Your task to perform on an android device: change the upload size in google photos Image 0: 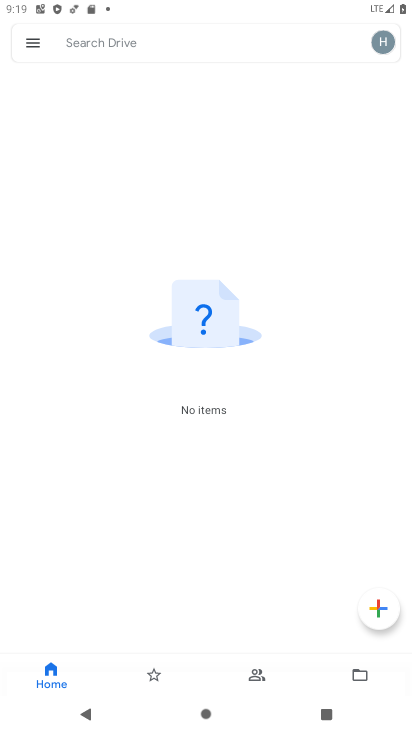
Step 0: press home button
Your task to perform on an android device: change the upload size in google photos Image 1: 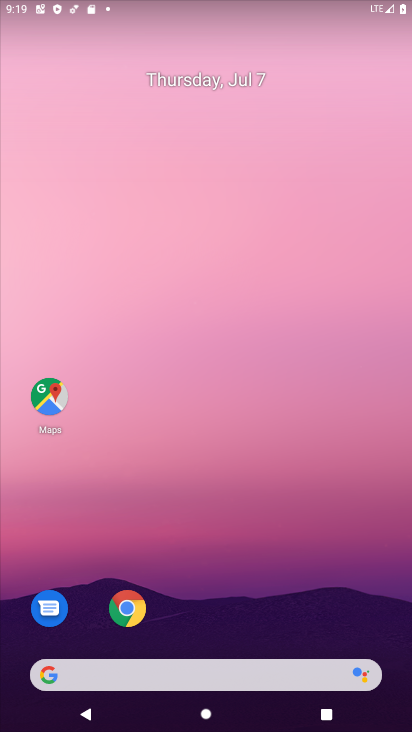
Step 1: drag from (182, 632) to (144, 174)
Your task to perform on an android device: change the upload size in google photos Image 2: 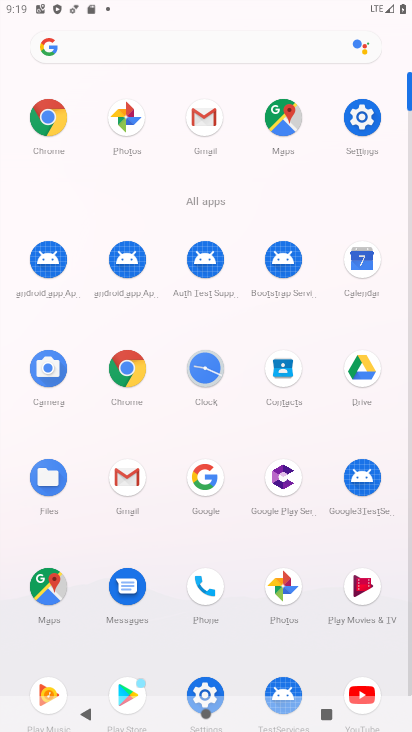
Step 2: click (289, 583)
Your task to perform on an android device: change the upload size in google photos Image 3: 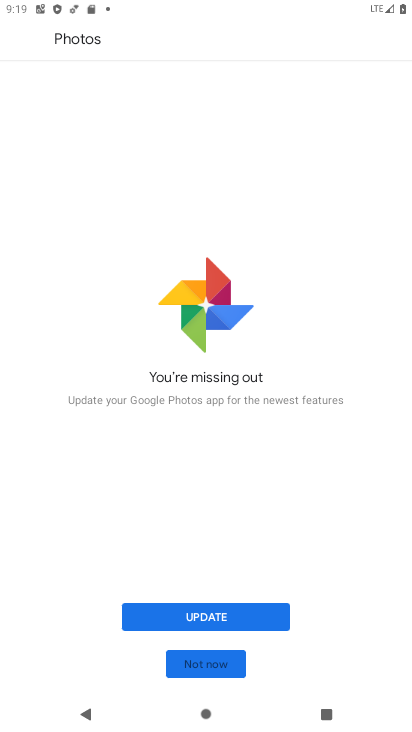
Step 3: click (219, 618)
Your task to perform on an android device: change the upload size in google photos Image 4: 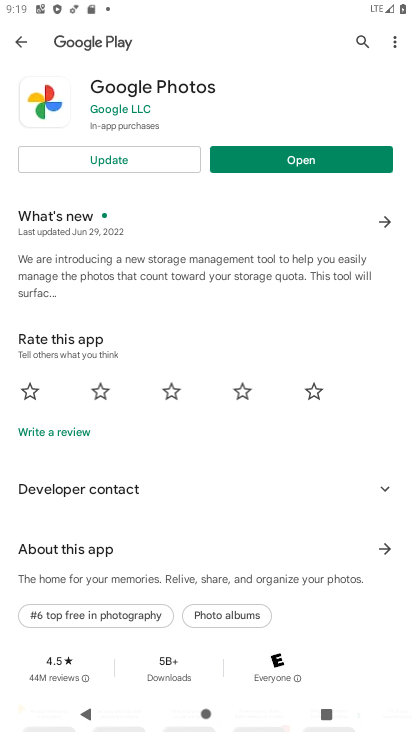
Step 4: click (147, 166)
Your task to perform on an android device: change the upload size in google photos Image 5: 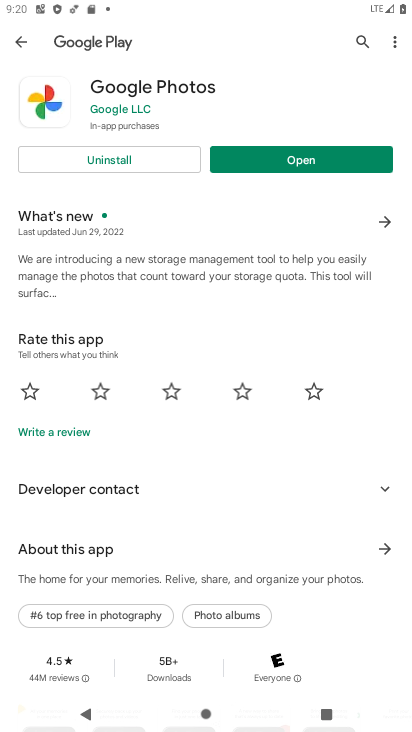
Step 5: click (289, 157)
Your task to perform on an android device: change the upload size in google photos Image 6: 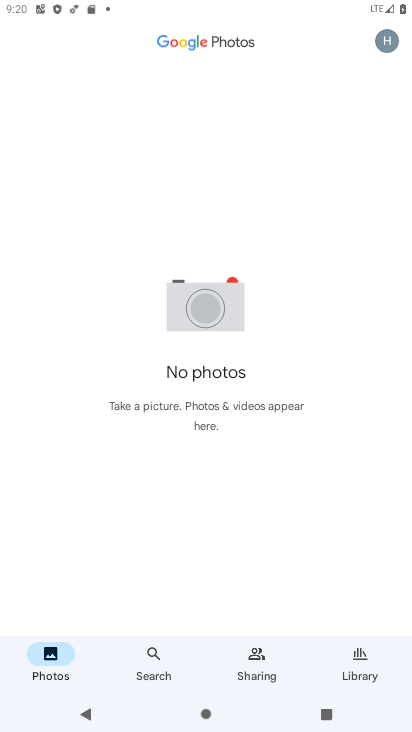
Step 6: click (391, 44)
Your task to perform on an android device: change the upload size in google photos Image 7: 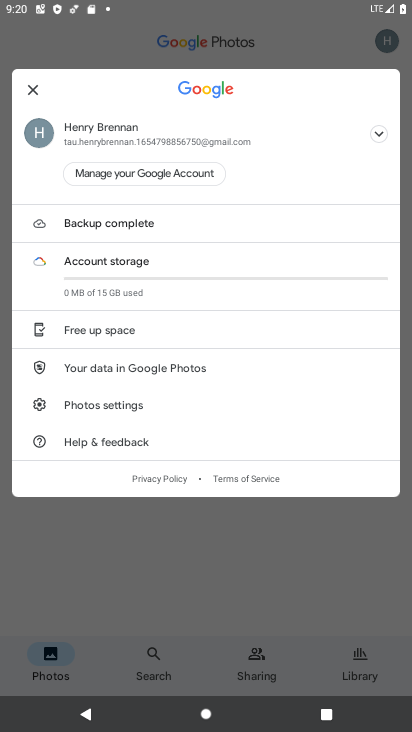
Step 7: click (116, 400)
Your task to perform on an android device: change the upload size in google photos Image 8: 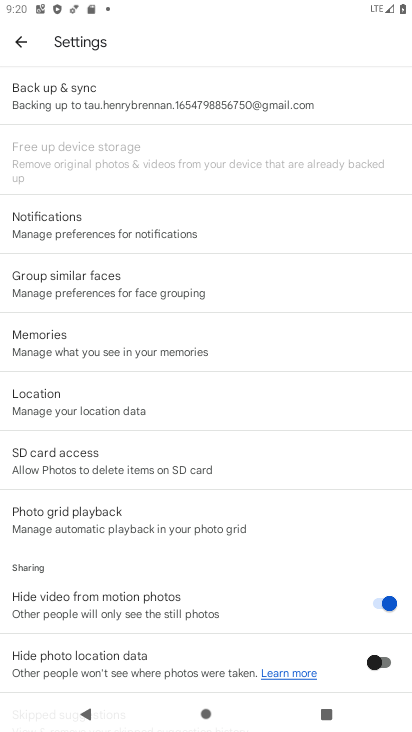
Step 8: click (91, 90)
Your task to perform on an android device: change the upload size in google photos Image 9: 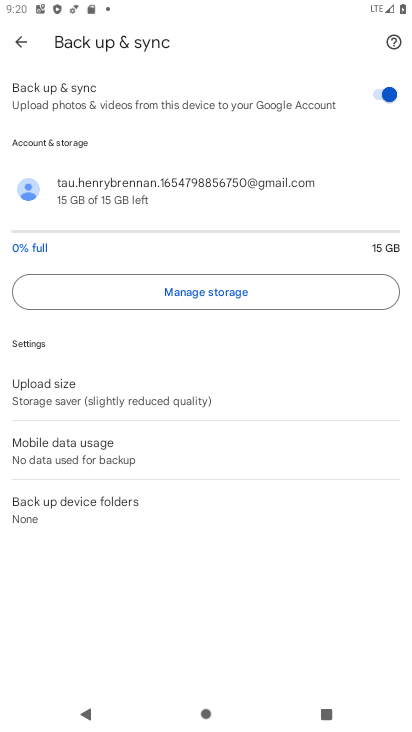
Step 9: click (104, 396)
Your task to perform on an android device: change the upload size in google photos Image 10: 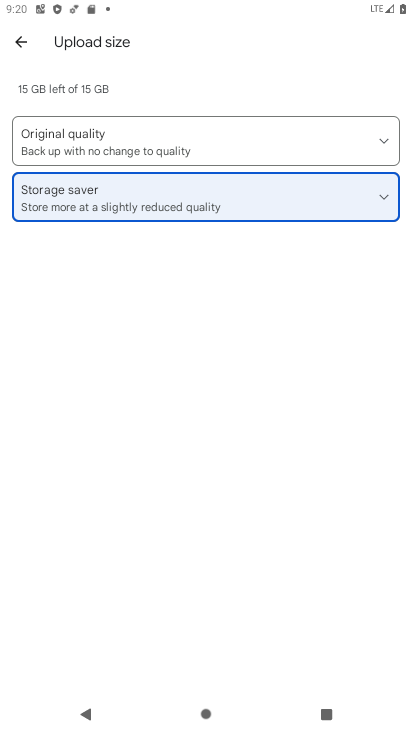
Step 10: click (111, 152)
Your task to perform on an android device: change the upload size in google photos Image 11: 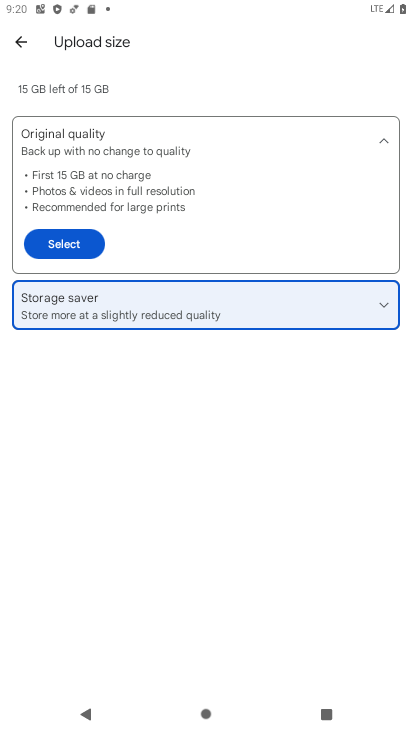
Step 11: click (78, 233)
Your task to perform on an android device: change the upload size in google photos Image 12: 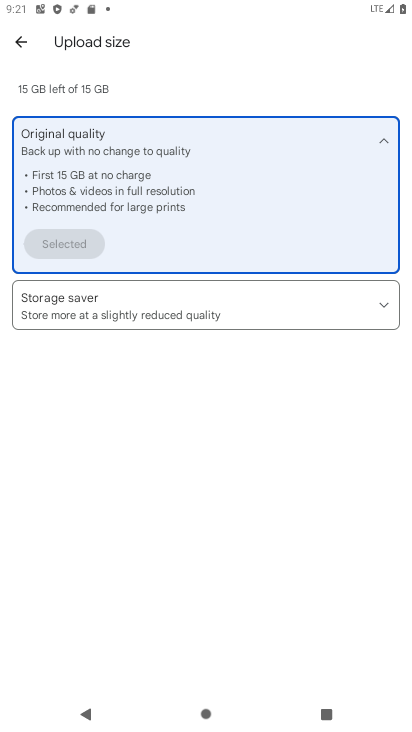
Step 12: task complete